Your task to perform on an android device: turn on wifi Image 0: 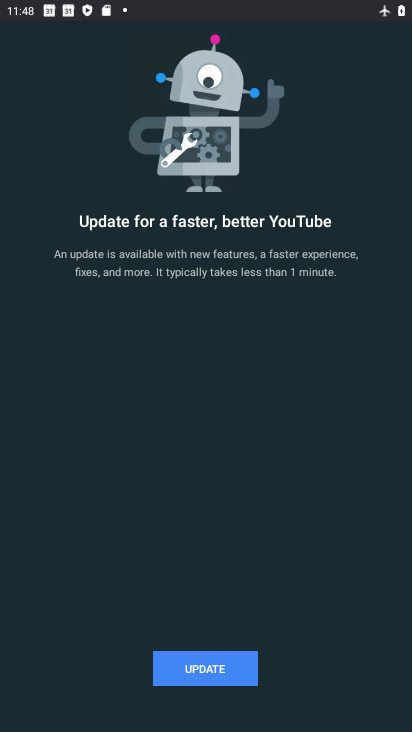
Step 0: press back button
Your task to perform on an android device: turn on wifi Image 1: 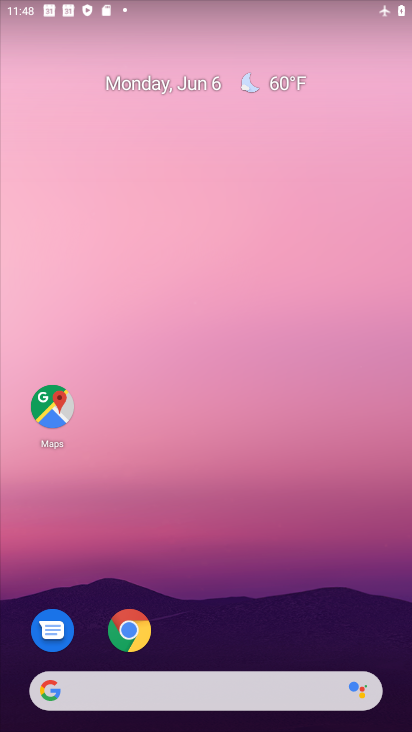
Step 1: drag from (230, 13) to (253, 507)
Your task to perform on an android device: turn on wifi Image 2: 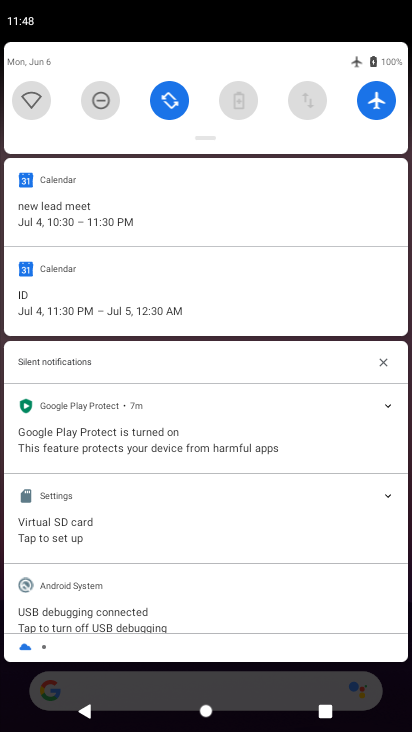
Step 2: click (33, 94)
Your task to perform on an android device: turn on wifi Image 3: 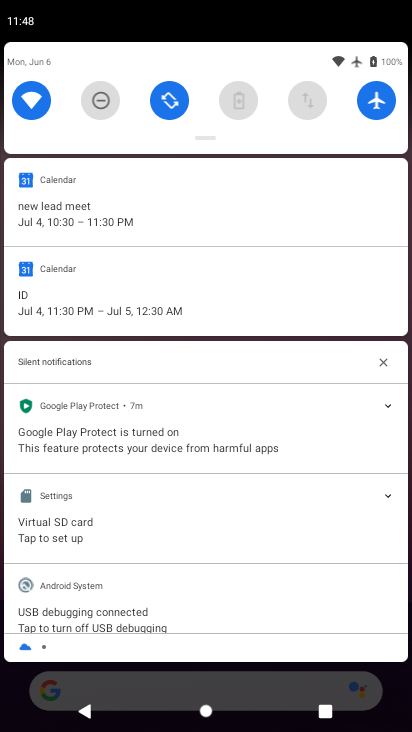
Step 3: task complete